Your task to perform on an android device: Go to Google Image 0: 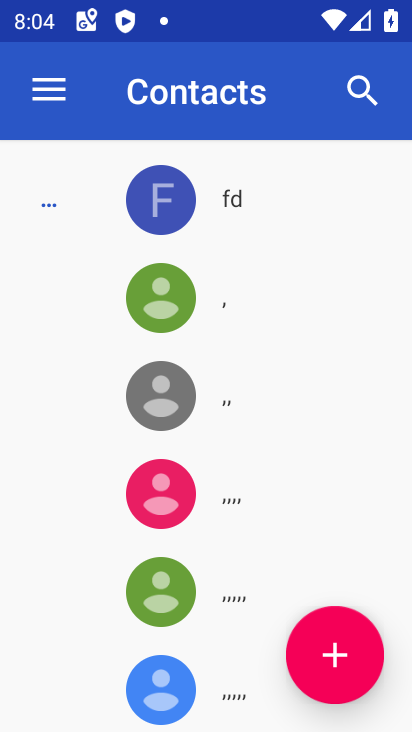
Step 0: press home button
Your task to perform on an android device: Go to Google Image 1: 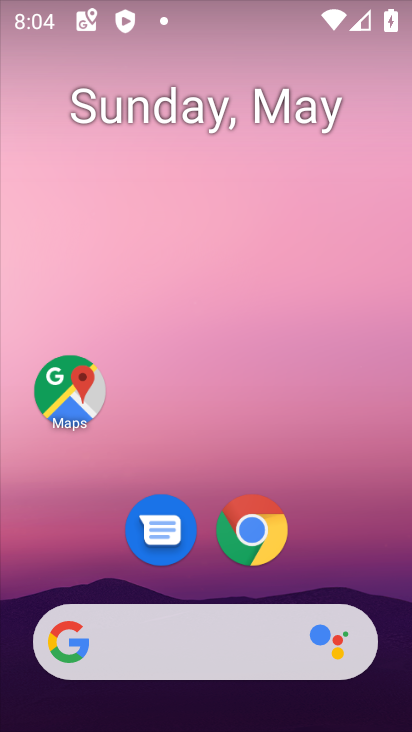
Step 1: drag from (374, 601) to (347, 14)
Your task to perform on an android device: Go to Google Image 2: 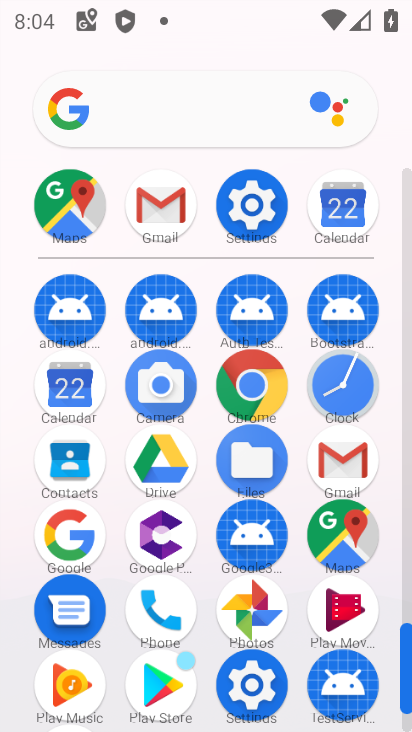
Step 2: click (69, 538)
Your task to perform on an android device: Go to Google Image 3: 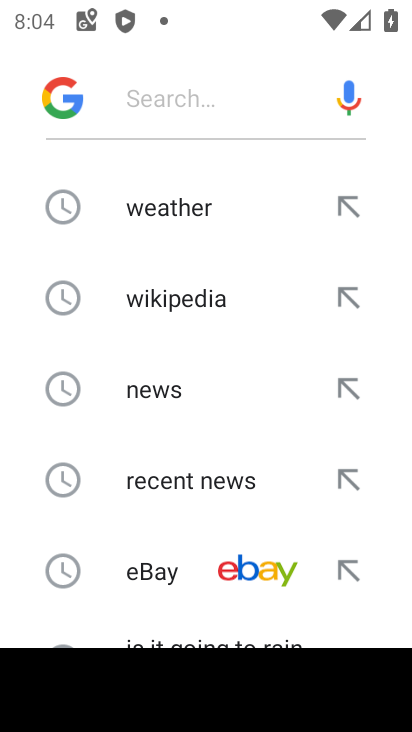
Step 3: task complete